Your task to perform on an android device: turn smart compose on in the gmail app Image 0: 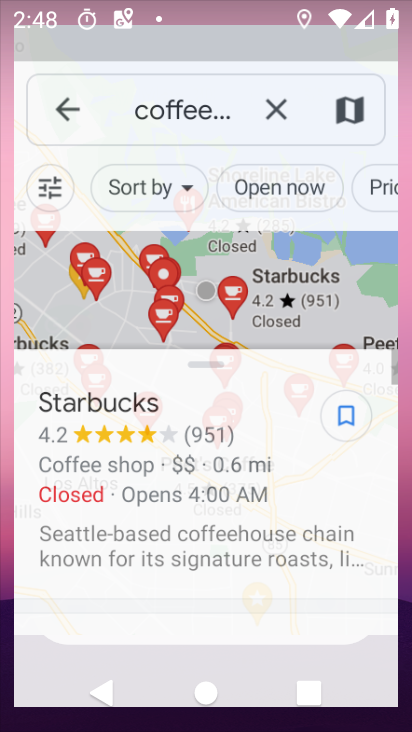
Step 0: click (159, 609)
Your task to perform on an android device: turn smart compose on in the gmail app Image 1: 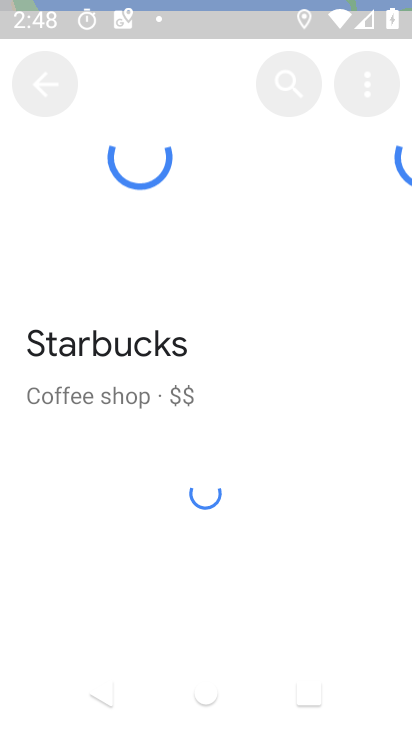
Step 1: press home button
Your task to perform on an android device: turn smart compose on in the gmail app Image 2: 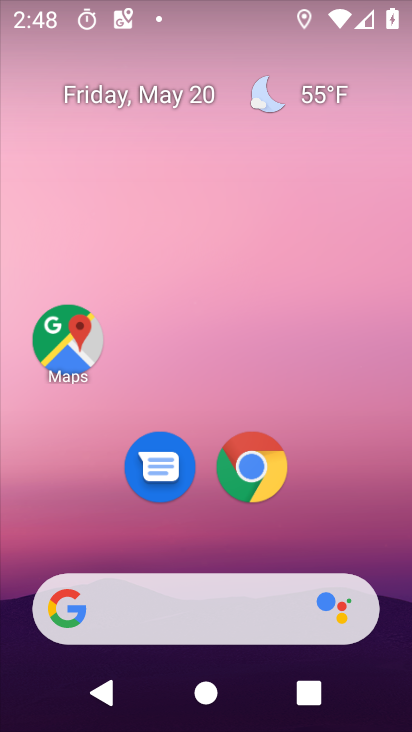
Step 2: drag from (191, 558) to (217, 21)
Your task to perform on an android device: turn smart compose on in the gmail app Image 3: 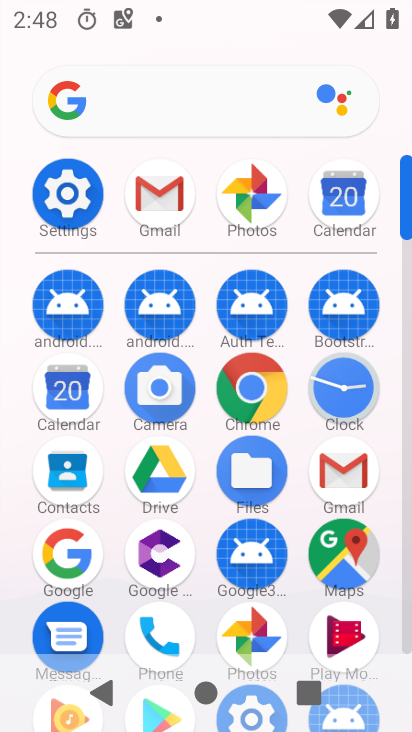
Step 3: click (347, 468)
Your task to perform on an android device: turn smart compose on in the gmail app Image 4: 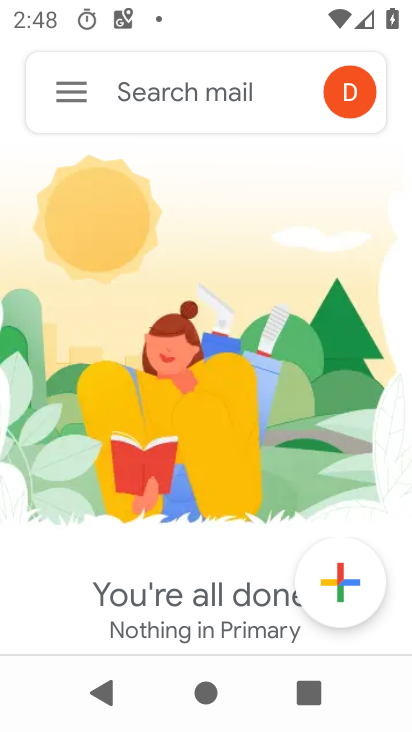
Step 4: click (58, 84)
Your task to perform on an android device: turn smart compose on in the gmail app Image 5: 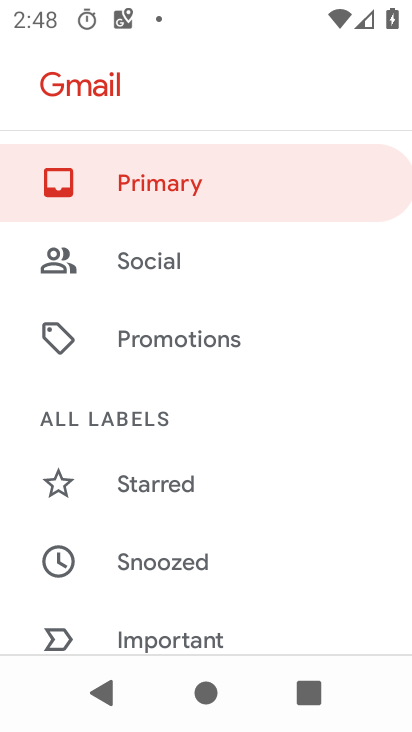
Step 5: drag from (155, 549) to (138, 140)
Your task to perform on an android device: turn smart compose on in the gmail app Image 6: 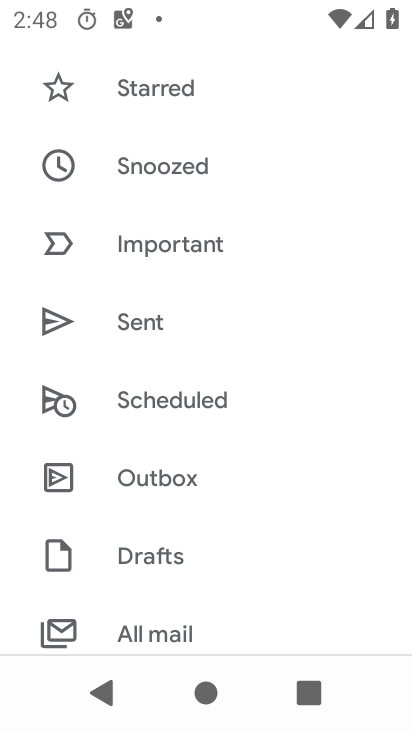
Step 6: drag from (191, 533) to (168, 205)
Your task to perform on an android device: turn smart compose on in the gmail app Image 7: 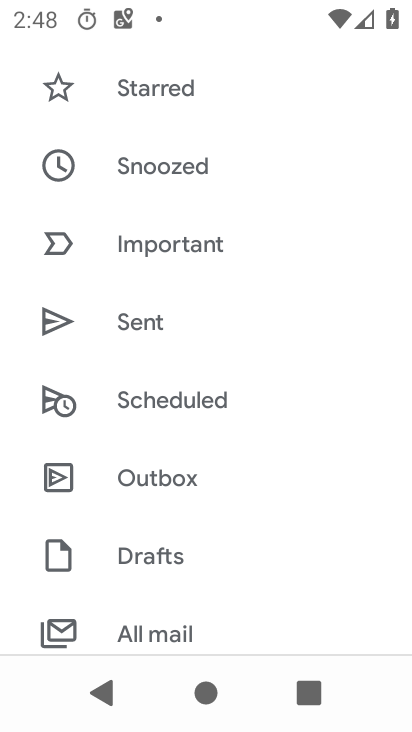
Step 7: drag from (207, 640) to (244, 227)
Your task to perform on an android device: turn smart compose on in the gmail app Image 8: 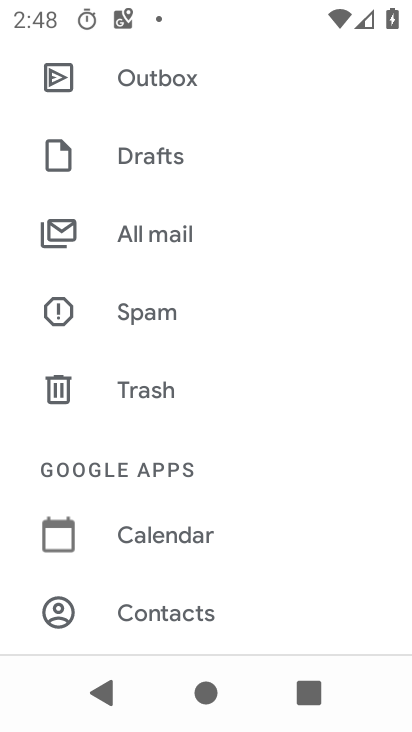
Step 8: drag from (157, 597) to (174, 242)
Your task to perform on an android device: turn smart compose on in the gmail app Image 9: 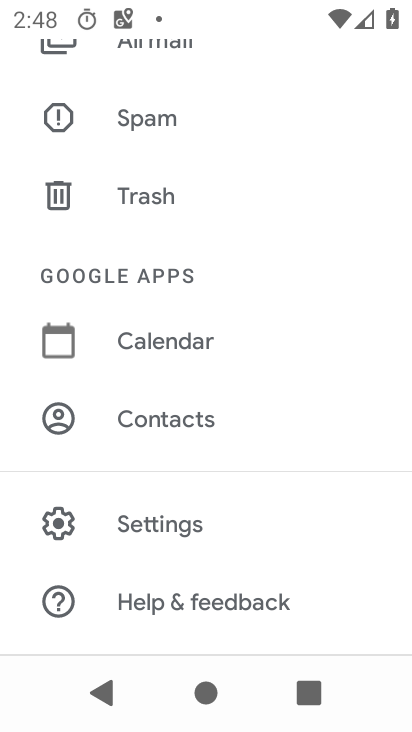
Step 9: click (172, 536)
Your task to perform on an android device: turn smart compose on in the gmail app Image 10: 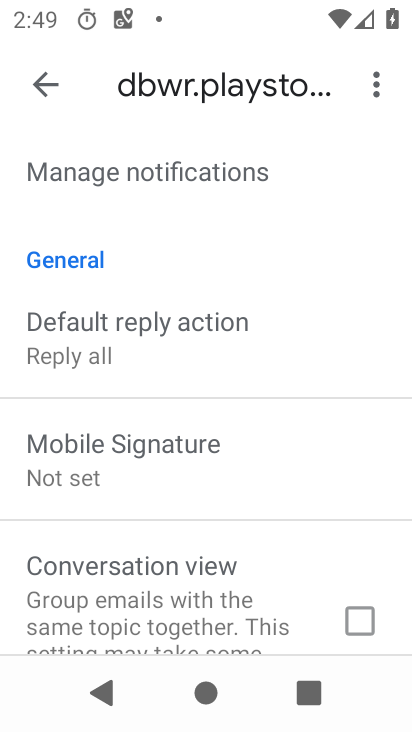
Step 10: task complete